Your task to perform on an android device: open app "LiveIn - Share Your Moment" (install if not already installed) and enter user name: "certifies@gmail.com" and password: "compartmented" Image 0: 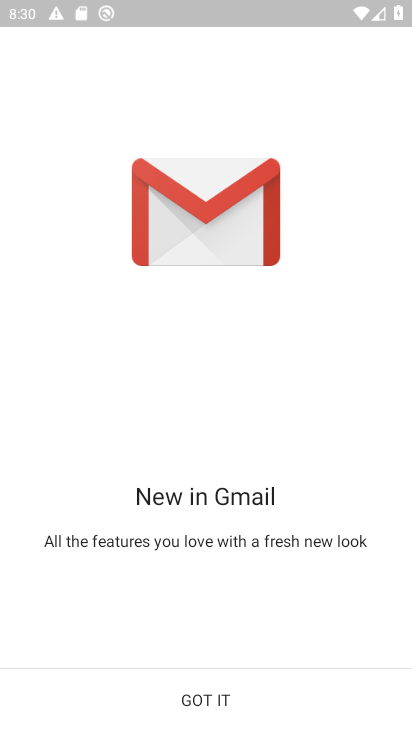
Step 0: press home button
Your task to perform on an android device: open app "LiveIn - Share Your Moment" (install if not already installed) and enter user name: "certifies@gmail.com" and password: "compartmented" Image 1: 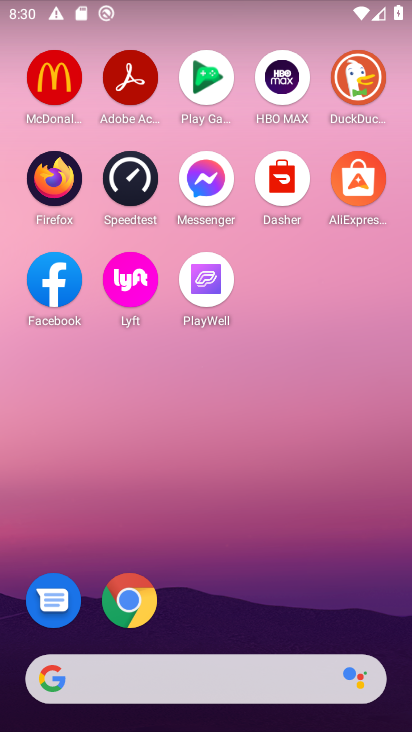
Step 1: drag from (215, 617) to (271, 16)
Your task to perform on an android device: open app "LiveIn - Share Your Moment" (install if not already installed) and enter user name: "certifies@gmail.com" and password: "compartmented" Image 2: 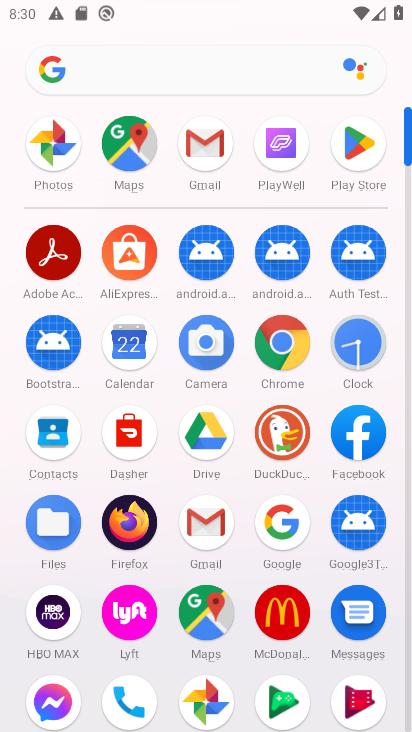
Step 2: click (351, 148)
Your task to perform on an android device: open app "LiveIn - Share Your Moment" (install if not already installed) and enter user name: "certifies@gmail.com" and password: "compartmented" Image 3: 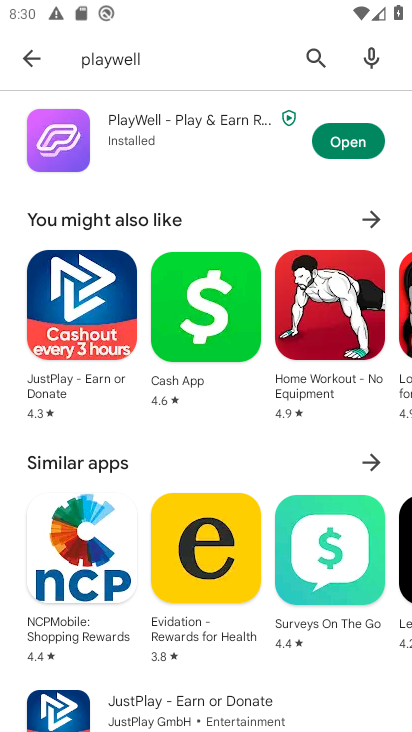
Step 3: click (318, 56)
Your task to perform on an android device: open app "LiveIn - Share Your Moment" (install if not already installed) and enter user name: "certifies@gmail.com" and password: "compartmented" Image 4: 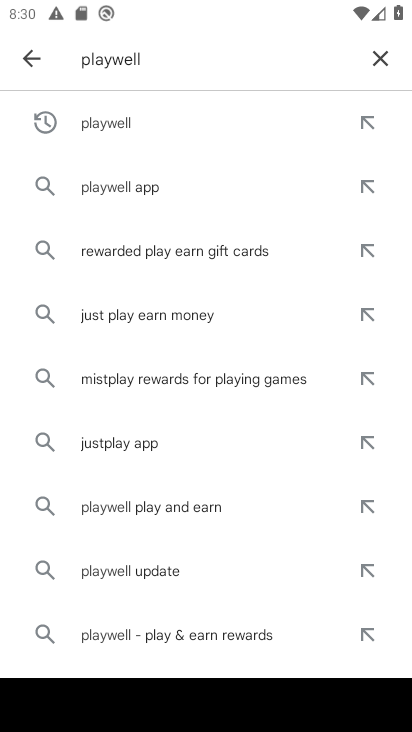
Step 4: click (391, 55)
Your task to perform on an android device: open app "LiveIn - Share Your Moment" (install if not already installed) and enter user name: "certifies@gmail.com" and password: "compartmented" Image 5: 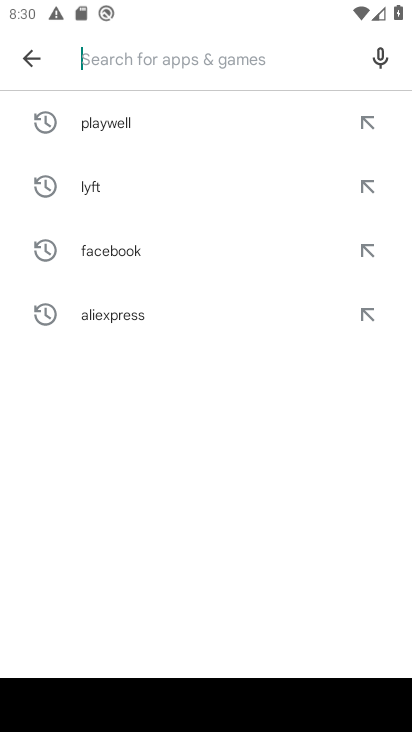
Step 5: type "LiveIn"
Your task to perform on an android device: open app "LiveIn - Share Your Moment" (install if not already installed) and enter user name: "certifies@gmail.com" and password: "compartmented" Image 6: 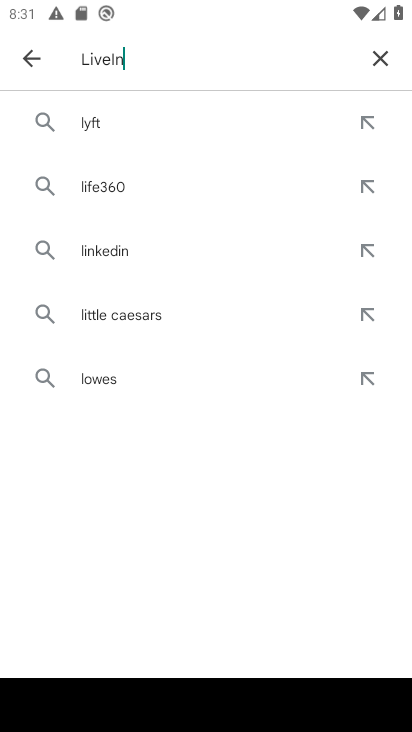
Step 6: type ""
Your task to perform on an android device: open app "LiveIn - Share Your Moment" (install if not already installed) and enter user name: "certifies@gmail.com" and password: "compartmented" Image 7: 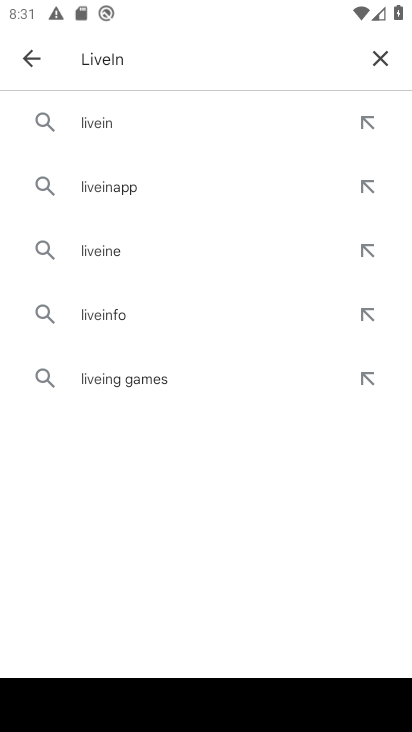
Step 7: click (170, 123)
Your task to perform on an android device: open app "LiveIn - Share Your Moment" (install if not already installed) and enter user name: "certifies@gmail.com" and password: "compartmented" Image 8: 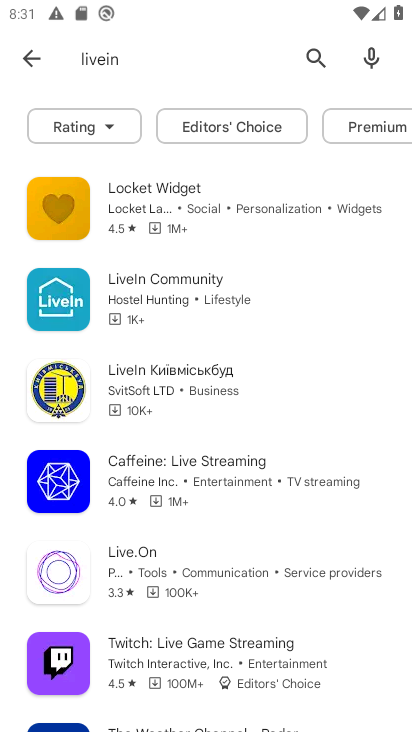
Step 8: task complete